Your task to perform on an android device: open a bookmark in the chrome app Image 0: 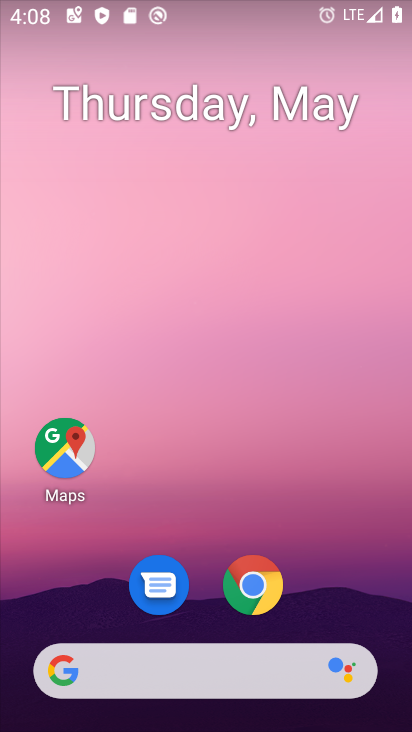
Step 0: click (263, 579)
Your task to perform on an android device: open a bookmark in the chrome app Image 1: 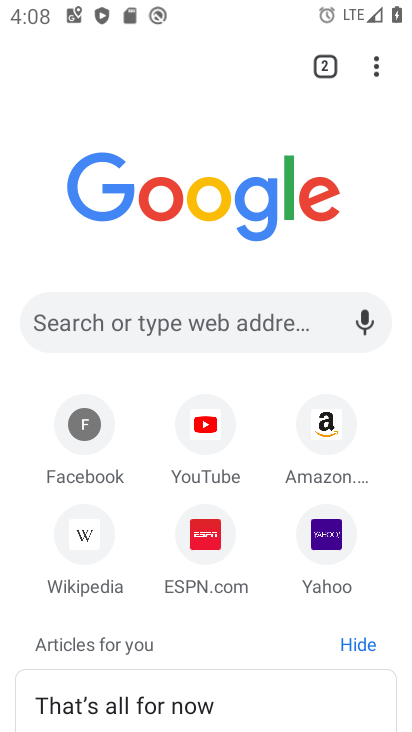
Step 1: click (369, 64)
Your task to perform on an android device: open a bookmark in the chrome app Image 2: 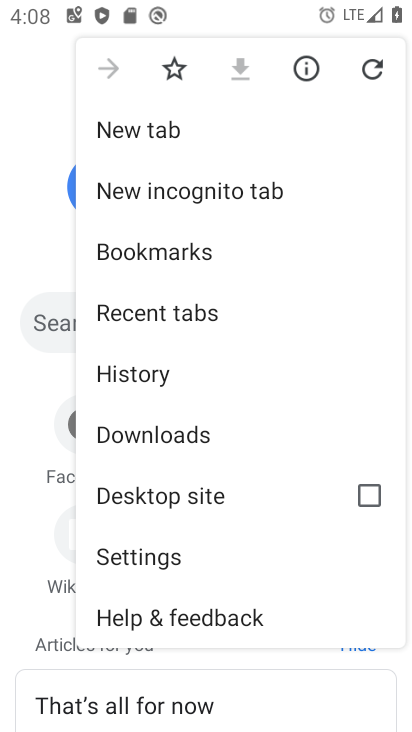
Step 2: click (210, 242)
Your task to perform on an android device: open a bookmark in the chrome app Image 3: 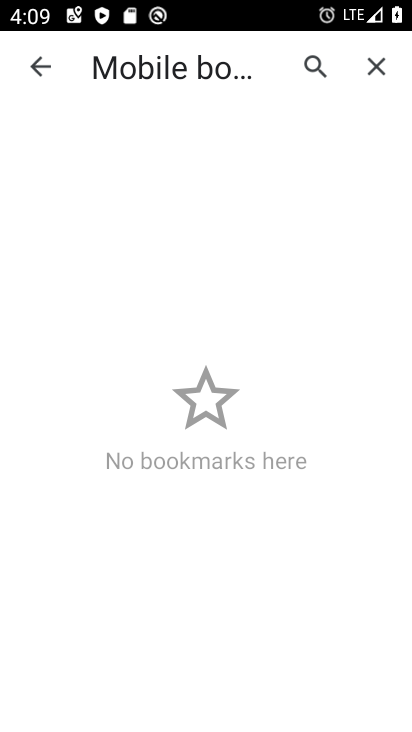
Step 3: task complete